Your task to perform on an android device: open app "Lyft - Rideshare, Bikes, Scooters & Transit" (install if not already installed) Image 0: 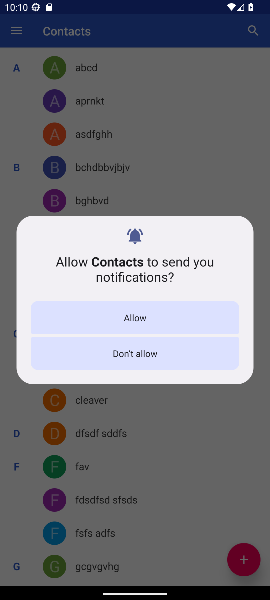
Step 0: press home button
Your task to perform on an android device: open app "Lyft - Rideshare, Bikes, Scooters & Transit" (install if not already installed) Image 1: 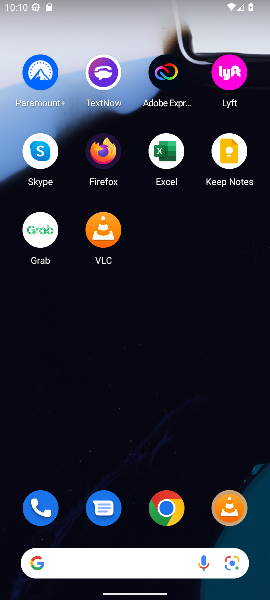
Step 1: click (109, 1)
Your task to perform on an android device: open app "Lyft - Rideshare, Bikes, Scooters & Transit" (install if not already installed) Image 2: 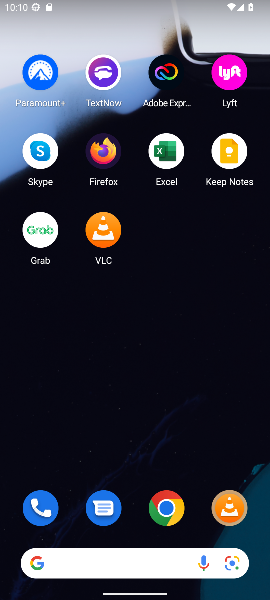
Step 2: drag from (126, 420) to (148, 7)
Your task to perform on an android device: open app "Lyft - Rideshare, Bikes, Scooters & Transit" (install if not already installed) Image 3: 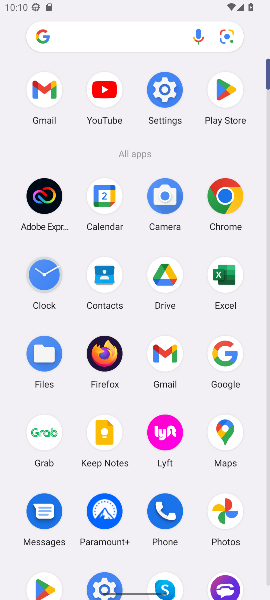
Step 3: click (228, 87)
Your task to perform on an android device: open app "Lyft - Rideshare, Bikes, Scooters & Transit" (install if not already installed) Image 4: 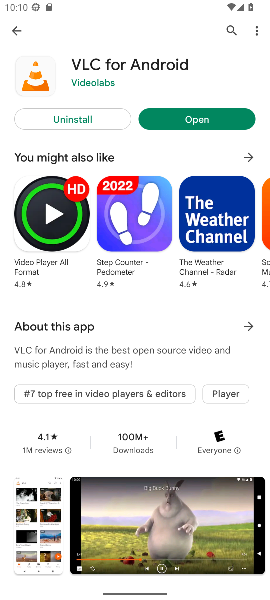
Step 4: click (232, 32)
Your task to perform on an android device: open app "Lyft - Rideshare, Bikes, Scooters & Transit" (install if not already installed) Image 5: 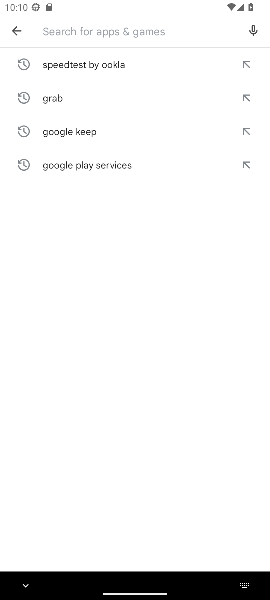
Step 5: type "Lyft - Rideshare, Bikes, Scooters & Transit"
Your task to perform on an android device: open app "Lyft - Rideshare, Bikes, Scooters & Transit" (install if not already installed) Image 6: 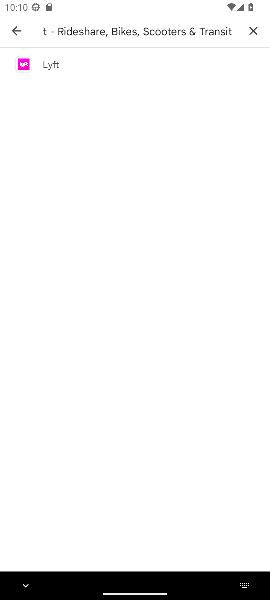
Step 6: click (48, 66)
Your task to perform on an android device: open app "Lyft - Rideshare, Bikes, Scooters & Transit" (install if not already installed) Image 7: 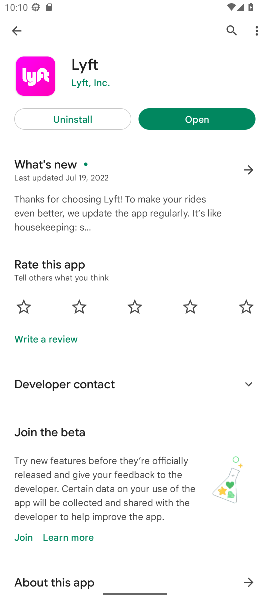
Step 7: click (227, 119)
Your task to perform on an android device: open app "Lyft - Rideshare, Bikes, Scooters & Transit" (install if not already installed) Image 8: 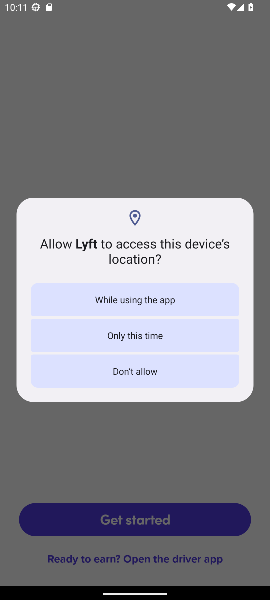
Step 8: press home button
Your task to perform on an android device: open app "Lyft - Rideshare, Bikes, Scooters & Transit" (install if not already installed) Image 9: 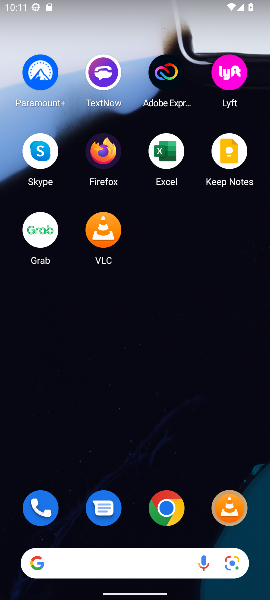
Step 9: drag from (187, 382) to (161, 14)
Your task to perform on an android device: open app "Lyft - Rideshare, Bikes, Scooters & Transit" (install if not already installed) Image 10: 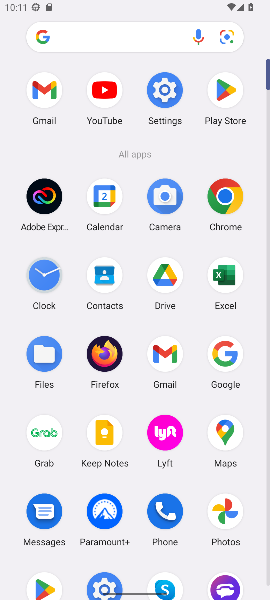
Step 10: click (217, 91)
Your task to perform on an android device: open app "Lyft - Rideshare, Bikes, Scooters & Transit" (install if not already installed) Image 11: 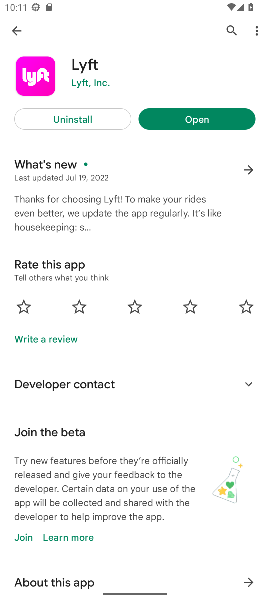
Step 11: click (232, 27)
Your task to perform on an android device: open app "Lyft - Rideshare, Bikes, Scooters & Transit" (install if not already installed) Image 12: 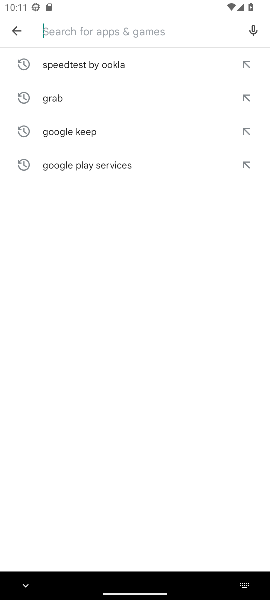
Step 12: type "Lyft - Rideshare, Bikes, Scooters & Transit"
Your task to perform on an android device: open app "Lyft - Rideshare, Bikes, Scooters & Transit" (install if not already installed) Image 13: 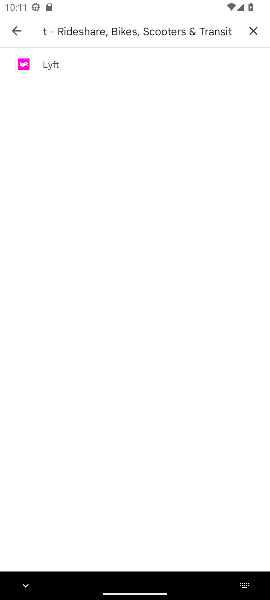
Step 13: click (47, 65)
Your task to perform on an android device: open app "Lyft - Rideshare, Bikes, Scooters & Transit" (install if not already installed) Image 14: 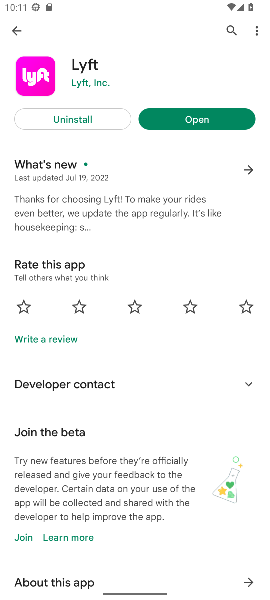
Step 14: click (189, 120)
Your task to perform on an android device: open app "Lyft - Rideshare, Bikes, Scooters & Transit" (install if not already installed) Image 15: 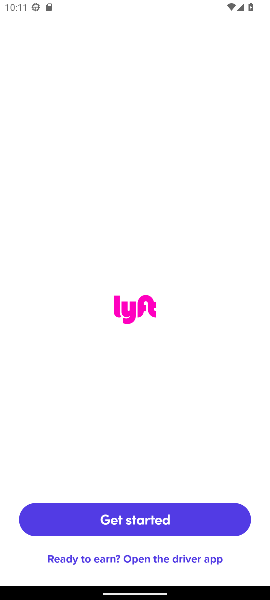
Step 15: task complete